Your task to perform on an android device: Go to calendar. Show me events next week Image 0: 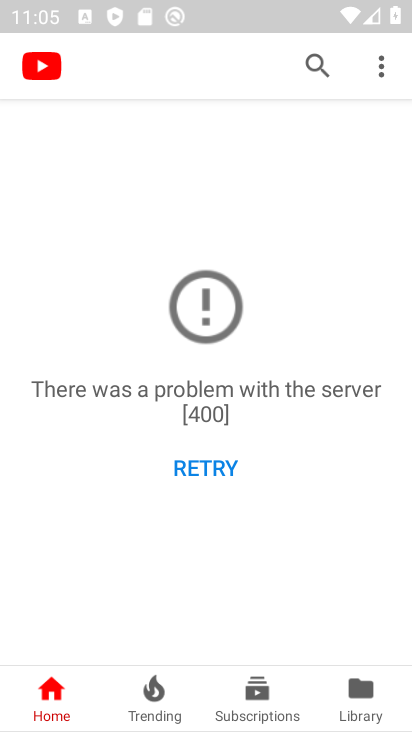
Step 0: press home button
Your task to perform on an android device: Go to calendar. Show me events next week Image 1: 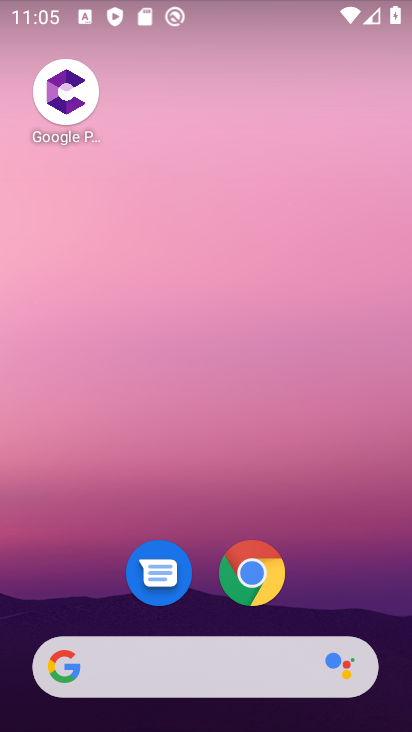
Step 1: drag from (209, 638) to (185, 153)
Your task to perform on an android device: Go to calendar. Show me events next week Image 2: 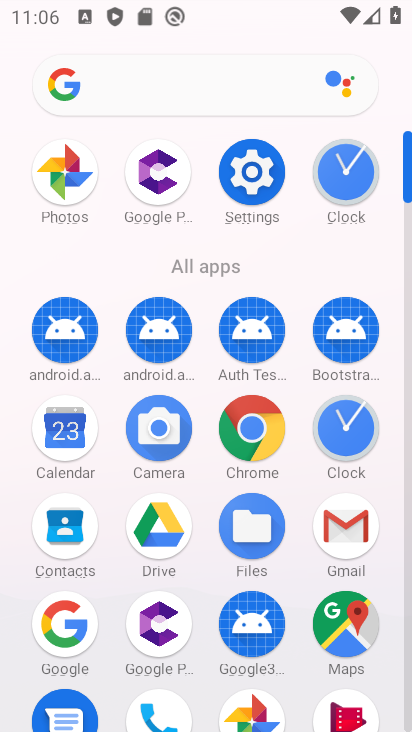
Step 2: click (64, 430)
Your task to perform on an android device: Go to calendar. Show me events next week Image 3: 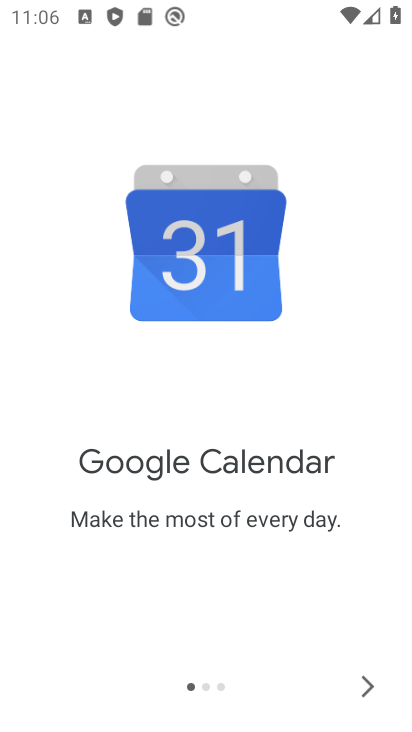
Step 3: click (376, 684)
Your task to perform on an android device: Go to calendar. Show me events next week Image 4: 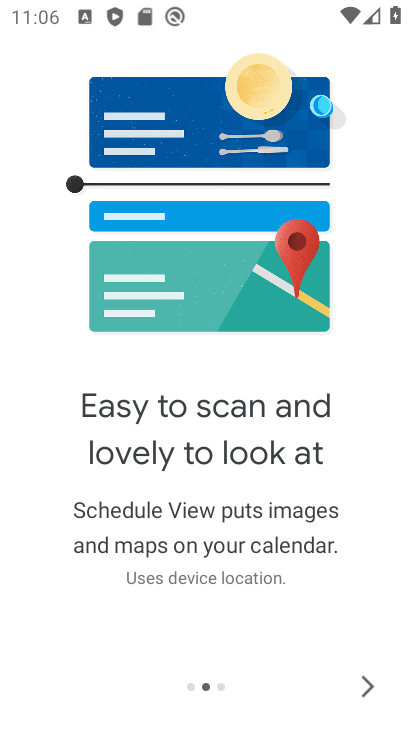
Step 4: click (376, 684)
Your task to perform on an android device: Go to calendar. Show me events next week Image 5: 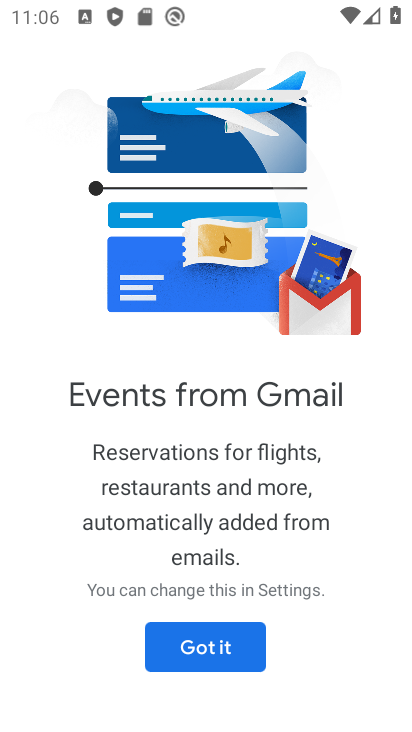
Step 5: click (249, 656)
Your task to perform on an android device: Go to calendar. Show me events next week Image 6: 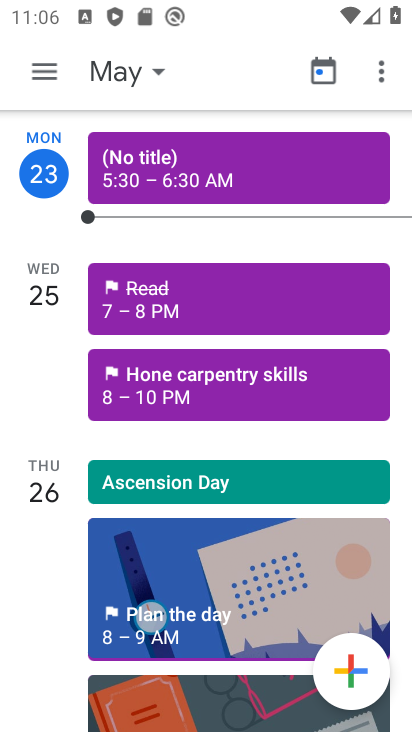
Step 6: click (129, 67)
Your task to perform on an android device: Go to calendar. Show me events next week Image 7: 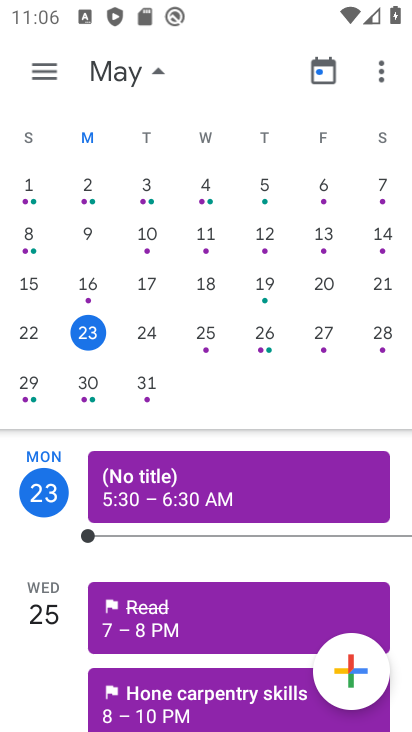
Step 7: click (86, 393)
Your task to perform on an android device: Go to calendar. Show me events next week Image 8: 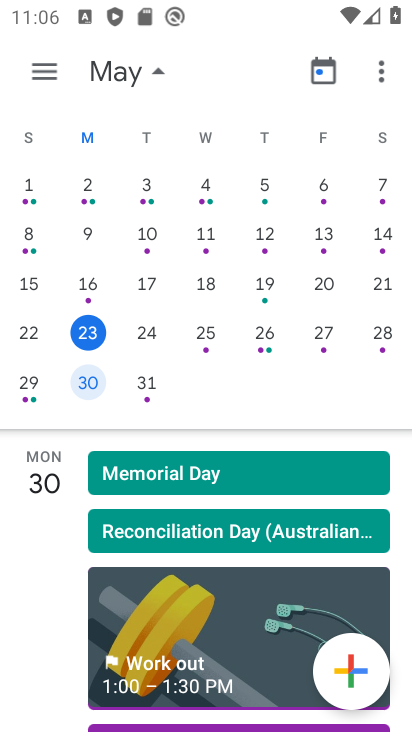
Step 8: task complete